Your task to perform on an android device: find snoozed emails in the gmail app Image 0: 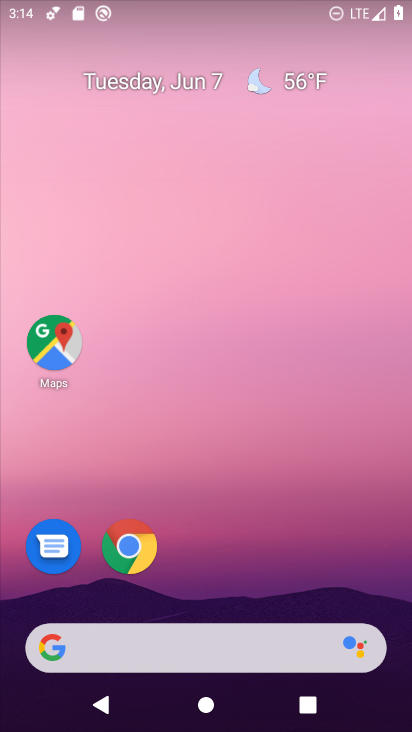
Step 0: drag from (203, 499) to (177, 87)
Your task to perform on an android device: find snoozed emails in the gmail app Image 1: 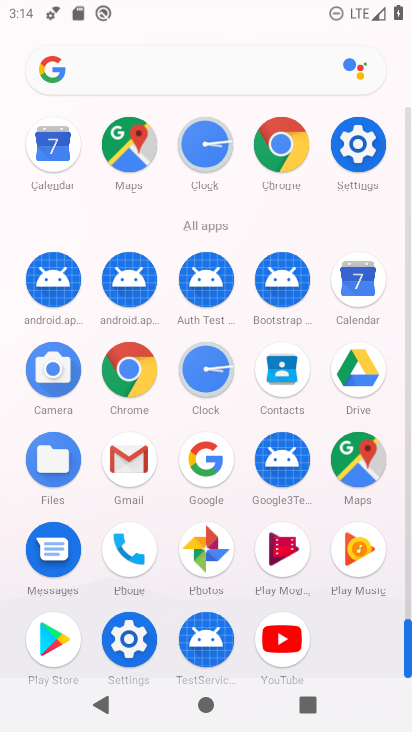
Step 1: drag from (5, 528) to (26, 172)
Your task to perform on an android device: find snoozed emails in the gmail app Image 2: 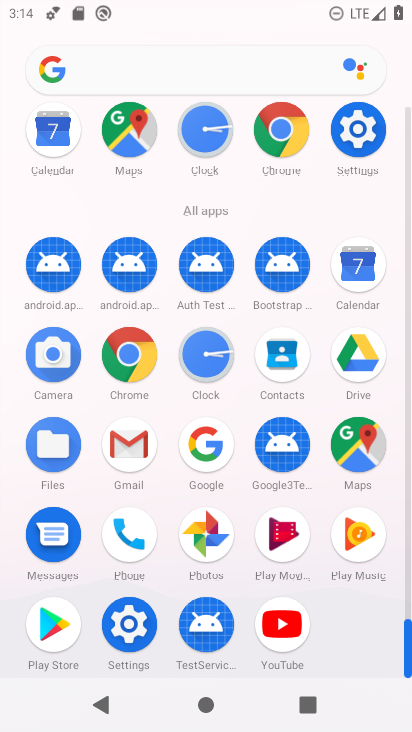
Step 2: click (127, 438)
Your task to perform on an android device: find snoozed emails in the gmail app Image 3: 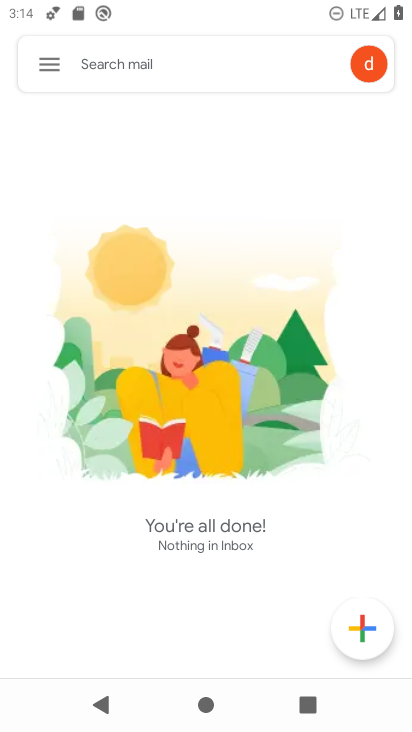
Step 3: click (47, 62)
Your task to perform on an android device: find snoozed emails in the gmail app Image 4: 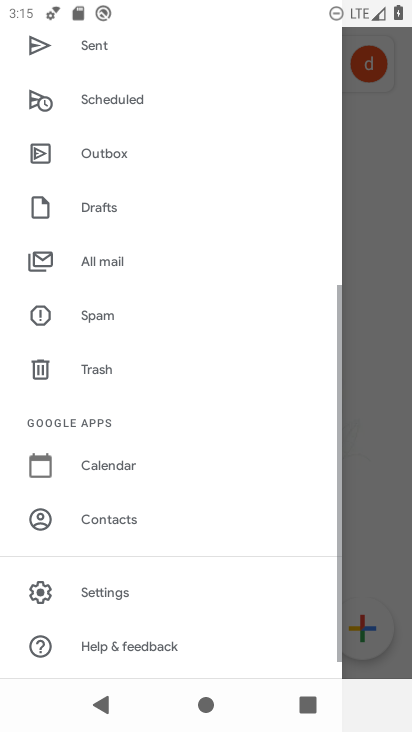
Step 4: drag from (191, 165) to (211, 556)
Your task to perform on an android device: find snoozed emails in the gmail app Image 5: 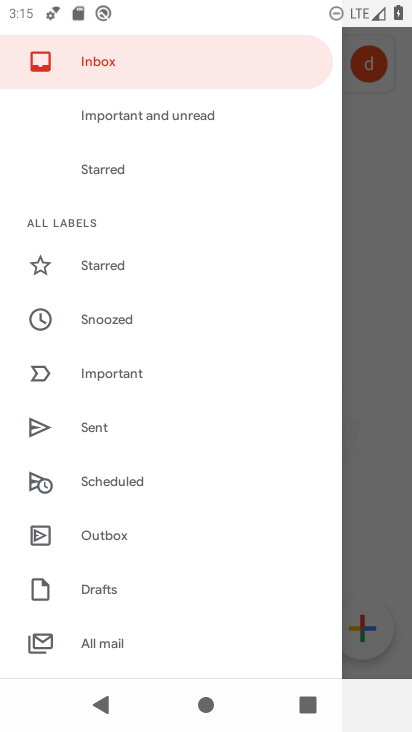
Step 5: click (143, 318)
Your task to perform on an android device: find snoozed emails in the gmail app Image 6: 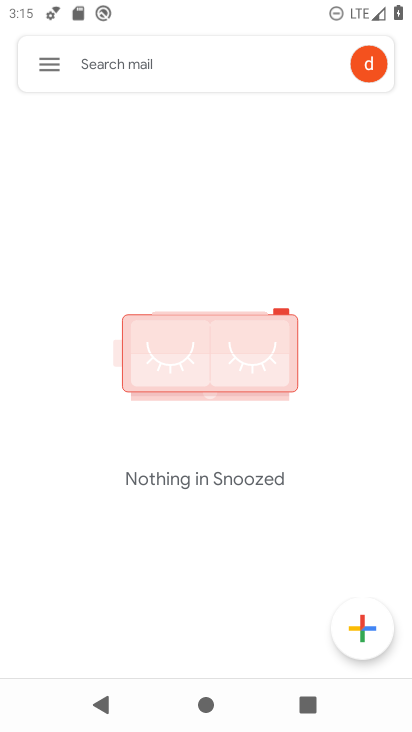
Step 6: task complete